Your task to perform on an android device: Find coffee shops on Maps Image 0: 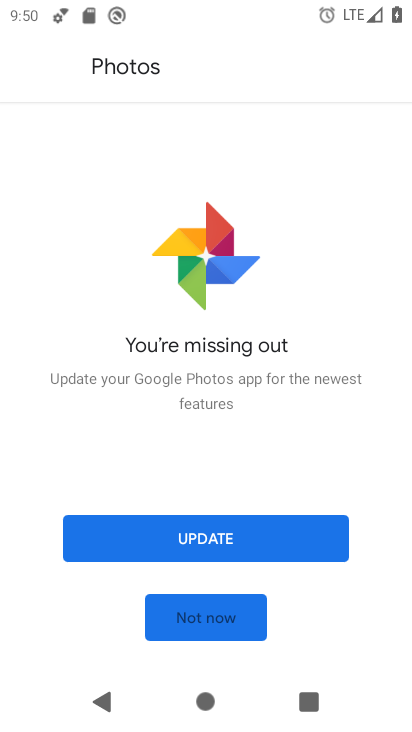
Step 0: press home button
Your task to perform on an android device: Find coffee shops on Maps Image 1: 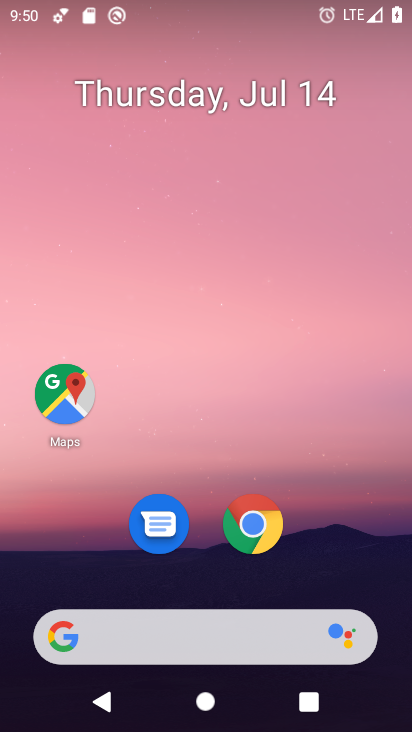
Step 1: click (66, 383)
Your task to perform on an android device: Find coffee shops on Maps Image 2: 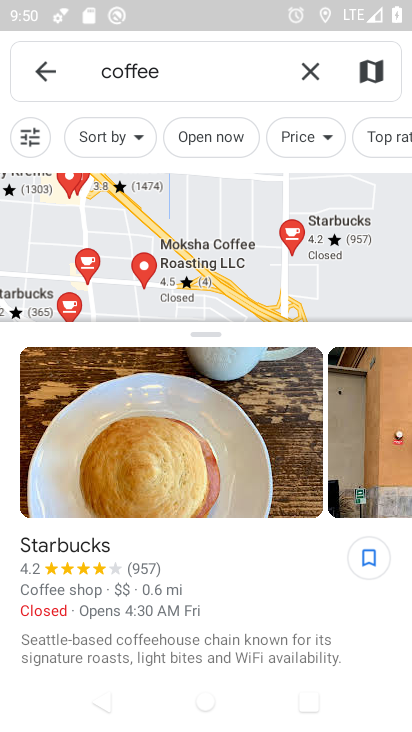
Step 2: click (193, 80)
Your task to perform on an android device: Find coffee shops on Maps Image 3: 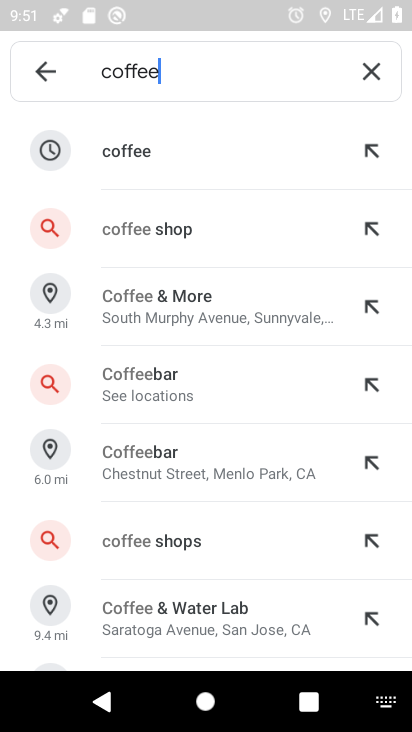
Step 3: click (149, 223)
Your task to perform on an android device: Find coffee shops on Maps Image 4: 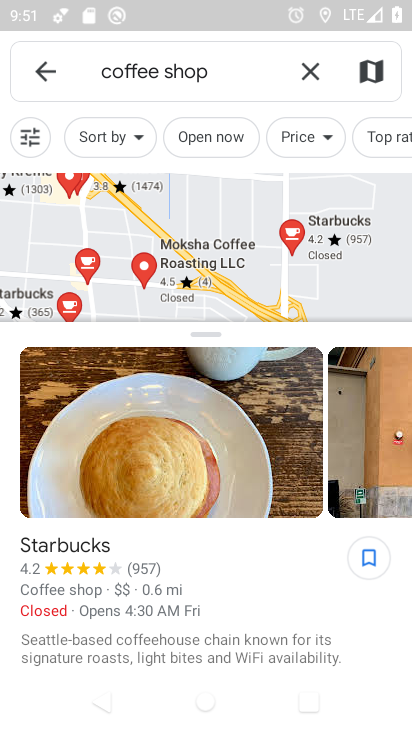
Step 4: task complete